Your task to perform on an android device: Go to Wikipedia Image 0: 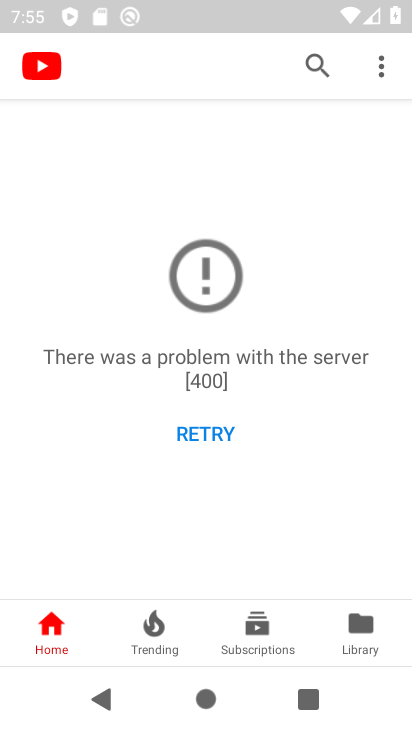
Step 0: press back button
Your task to perform on an android device: Go to Wikipedia Image 1: 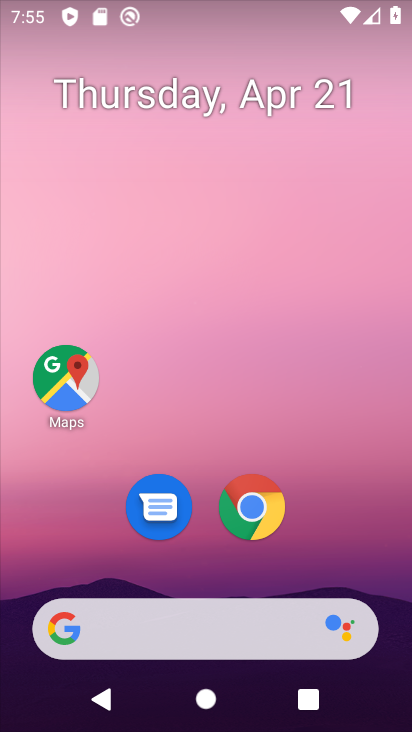
Step 1: click (238, 514)
Your task to perform on an android device: Go to Wikipedia Image 2: 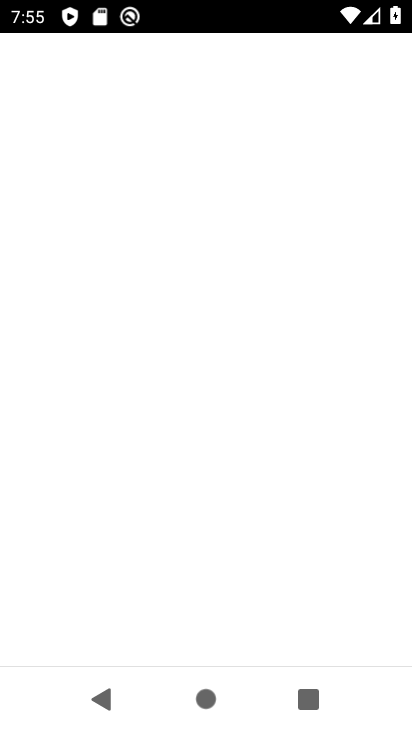
Step 2: click (238, 514)
Your task to perform on an android device: Go to Wikipedia Image 3: 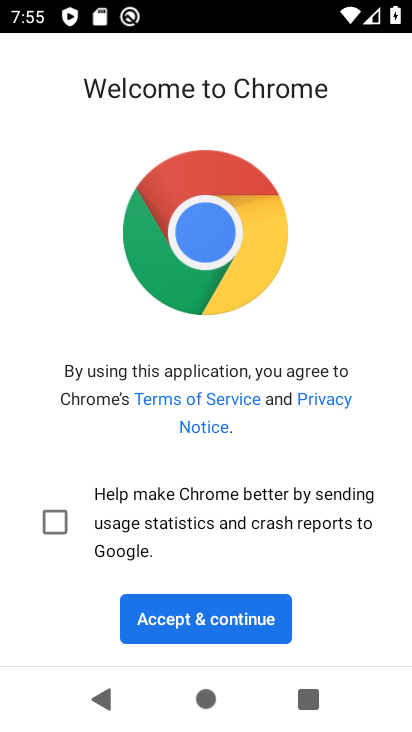
Step 3: click (212, 608)
Your task to perform on an android device: Go to Wikipedia Image 4: 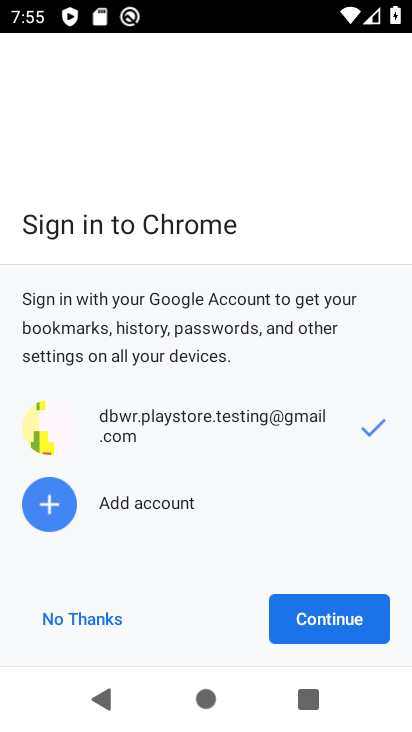
Step 4: click (356, 616)
Your task to perform on an android device: Go to Wikipedia Image 5: 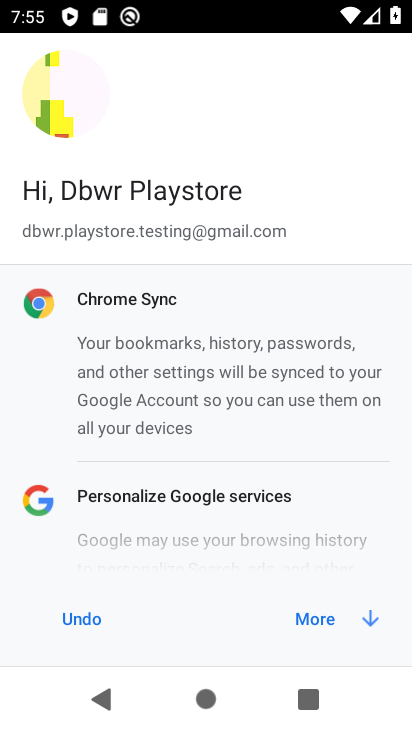
Step 5: click (353, 614)
Your task to perform on an android device: Go to Wikipedia Image 6: 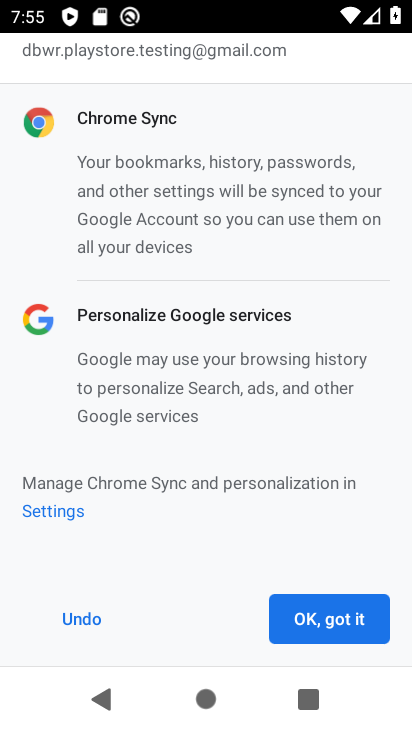
Step 6: click (350, 609)
Your task to perform on an android device: Go to Wikipedia Image 7: 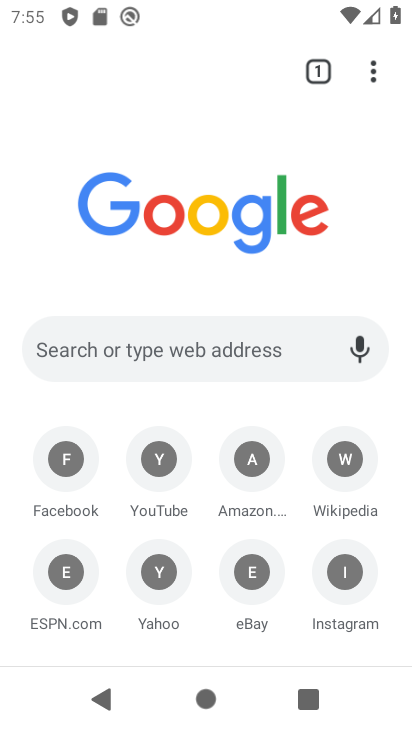
Step 7: click (348, 448)
Your task to perform on an android device: Go to Wikipedia Image 8: 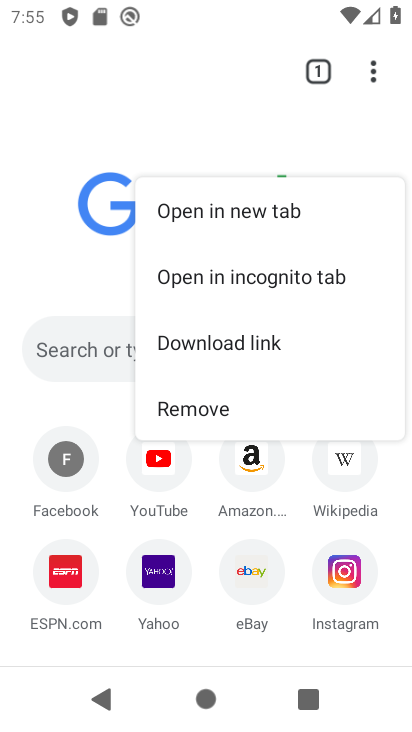
Step 8: click (347, 474)
Your task to perform on an android device: Go to Wikipedia Image 9: 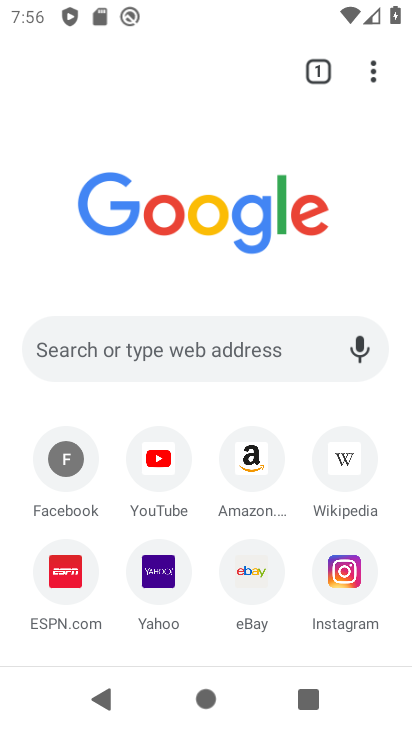
Step 9: click (347, 460)
Your task to perform on an android device: Go to Wikipedia Image 10: 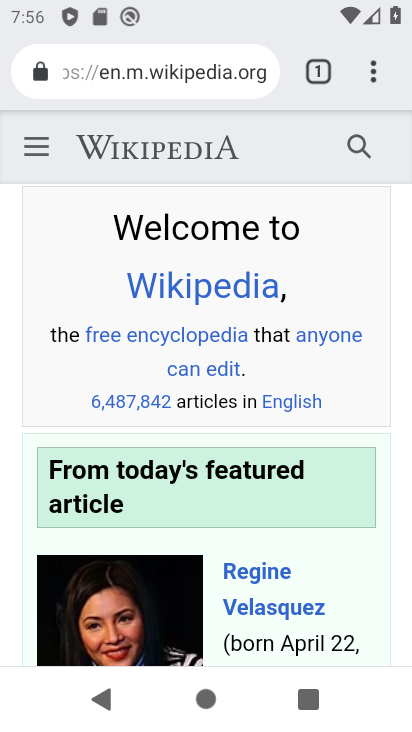
Step 10: task complete